Your task to perform on an android device: visit the assistant section in the google photos Image 0: 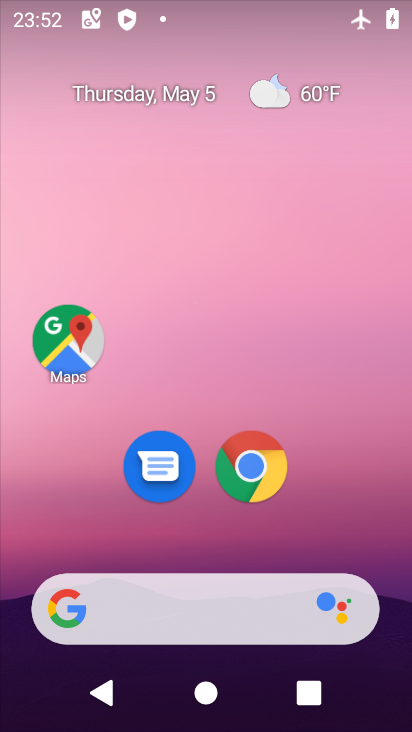
Step 0: drag from (201, 533) to (243, 205)
Your task to perform on an android device: visit the assistant section in the google photos Image 1: 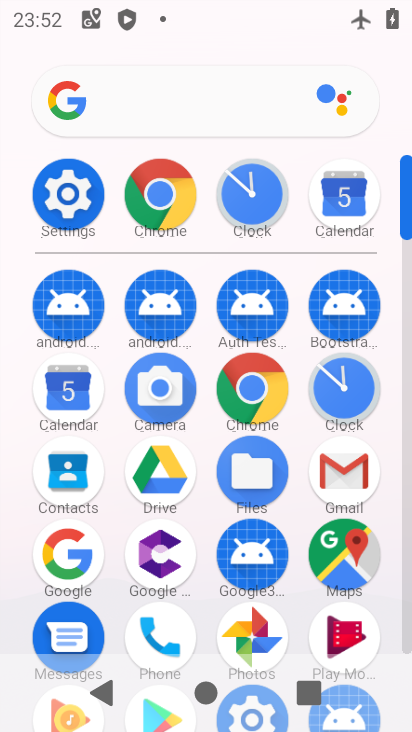
Step 1: click (261, 626)
Your task to perform on an android device: visit the assistant section in the google photos Image 2: 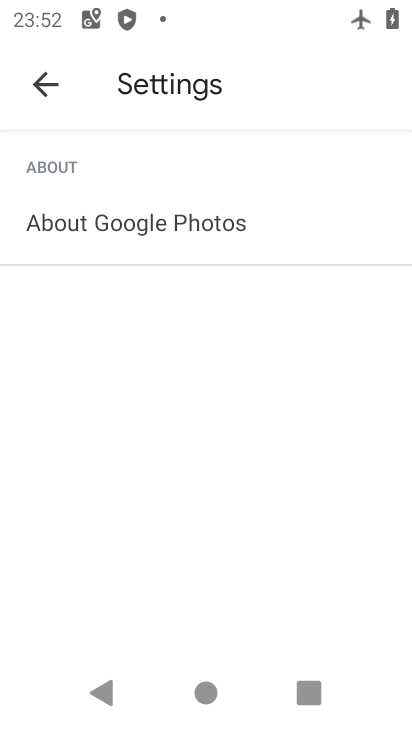
Step 2: click (53, 90)
Your task to perform on an android device: visit the assistant section in the google photos Image 3: 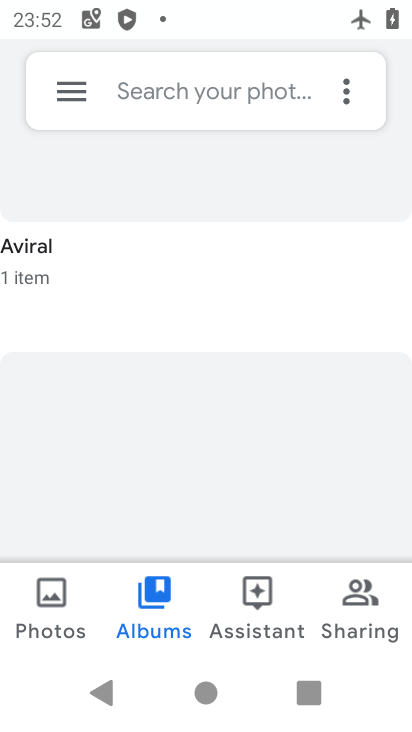
Step 3: click (246, 602)
Your task to perform on an android device: visit the assistant section in the google photos Image 4: 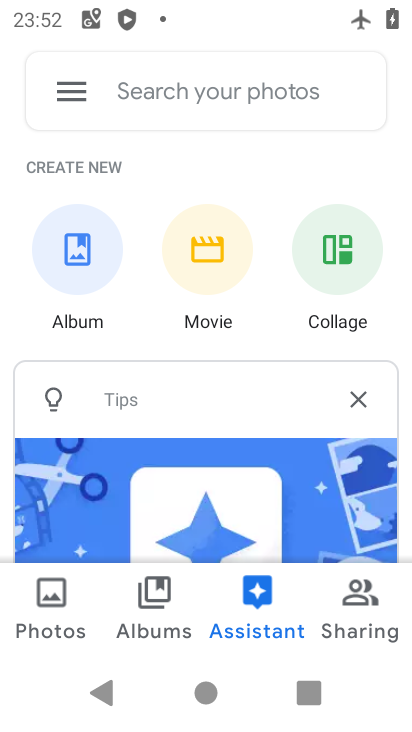
Step 4: task complete